Your task to perform on an android device: Where can I buy a nice beach tent? Image 0: 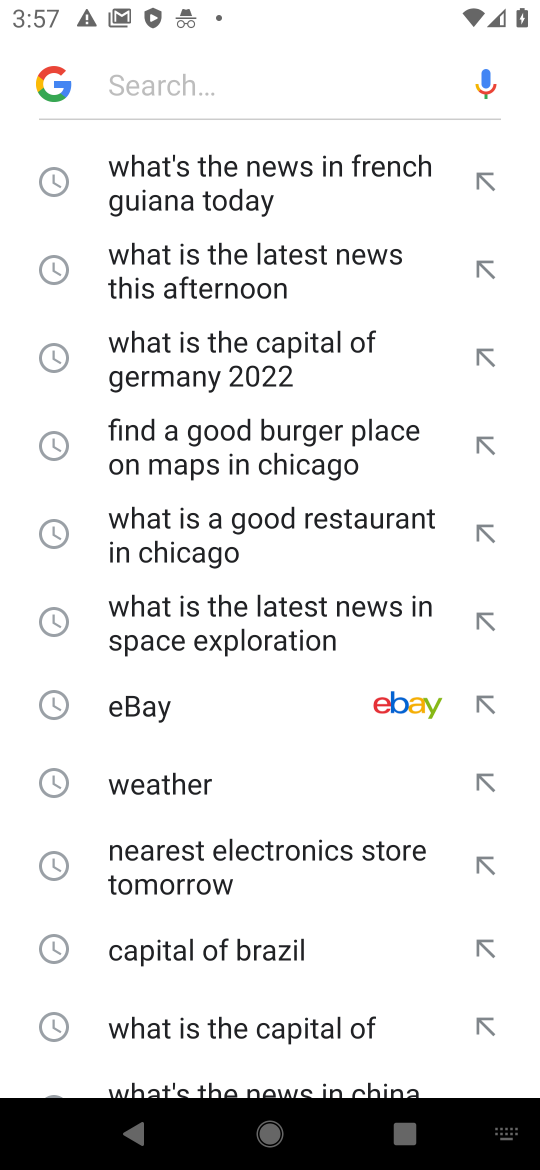
Step 0: type "buy a nice beach tent"
Your task to perform on an android device: Where can I buy a nice beach tent? Image 1: 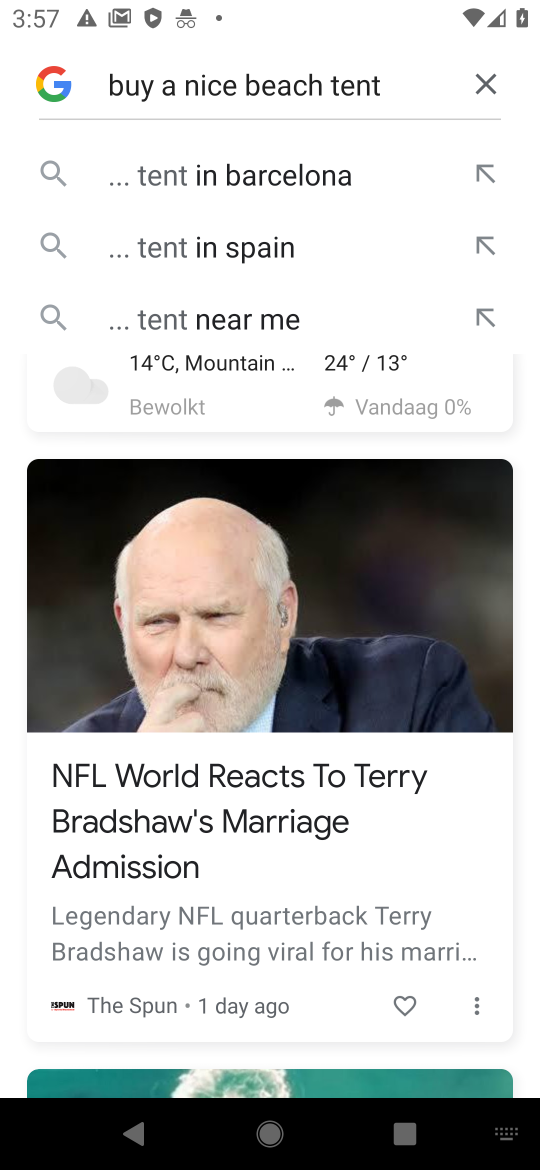
Step 1: press enter
Your task to perform on an android device: Where can I buy a nice beach tent? Image 2: 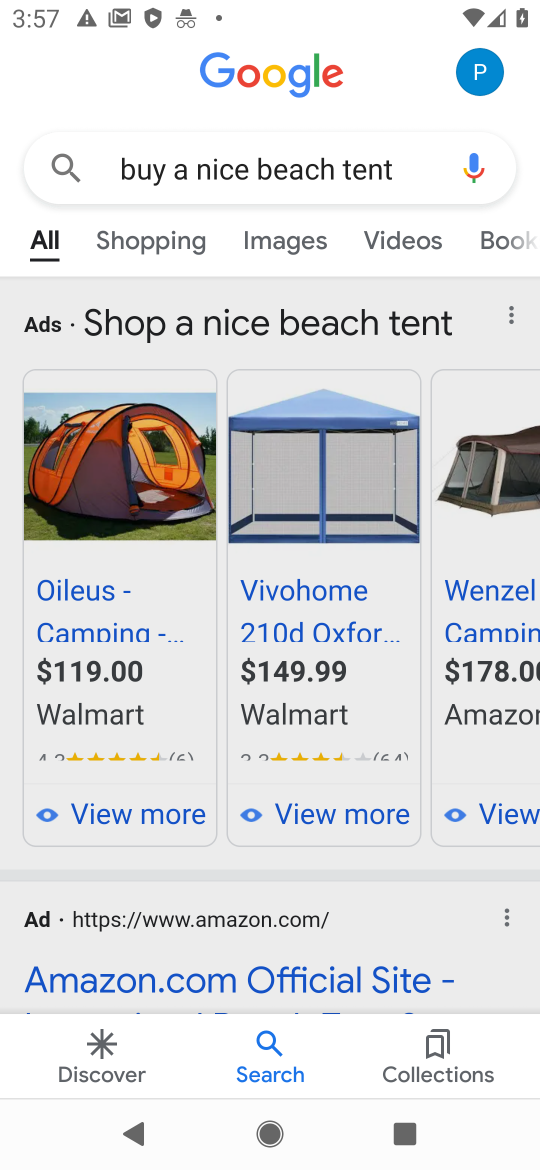
Step 2: task complete